Your task to perform on an android device: Turn on the flashlight Image 0: 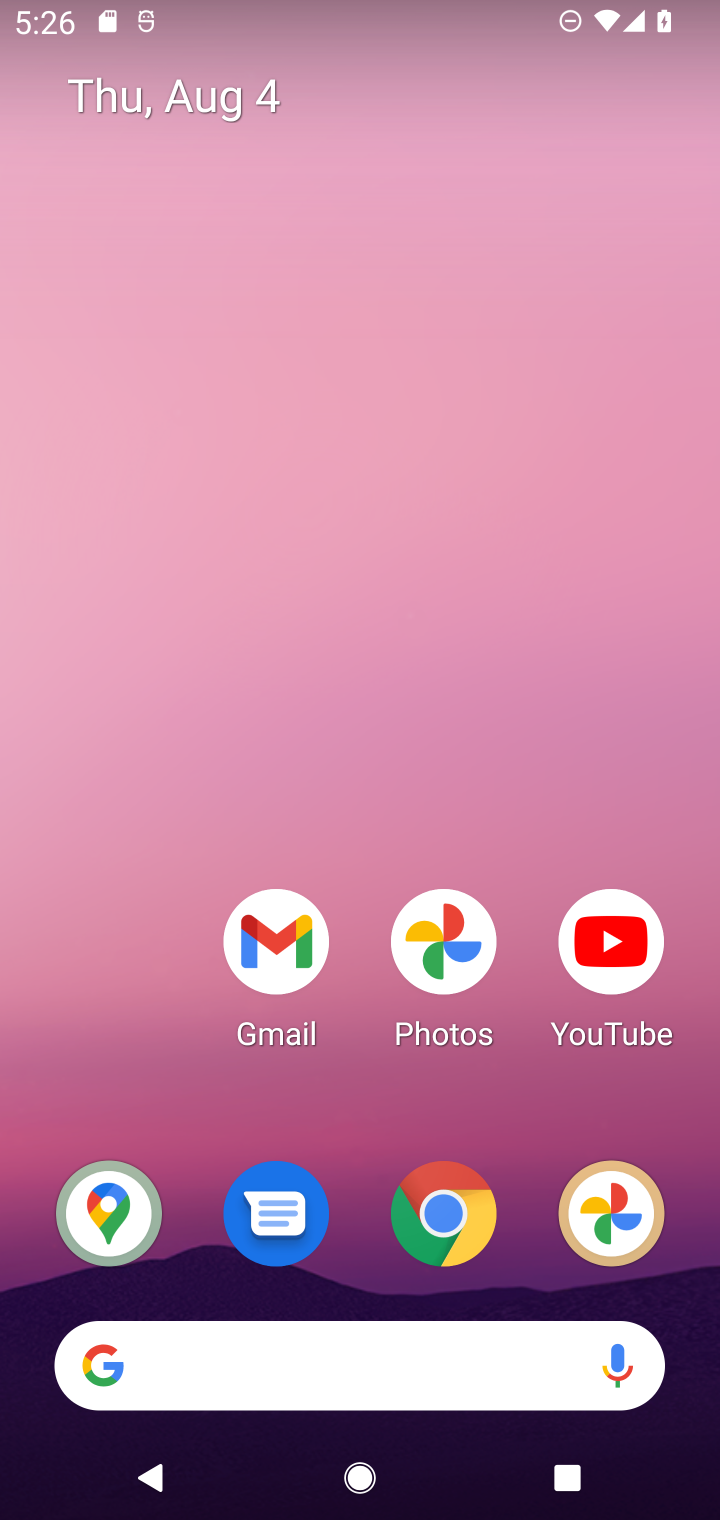
Step 0: drag from (370, 52) to (359, 770)
Your task to perform on an android device: Turn on the flashlight Image 1: 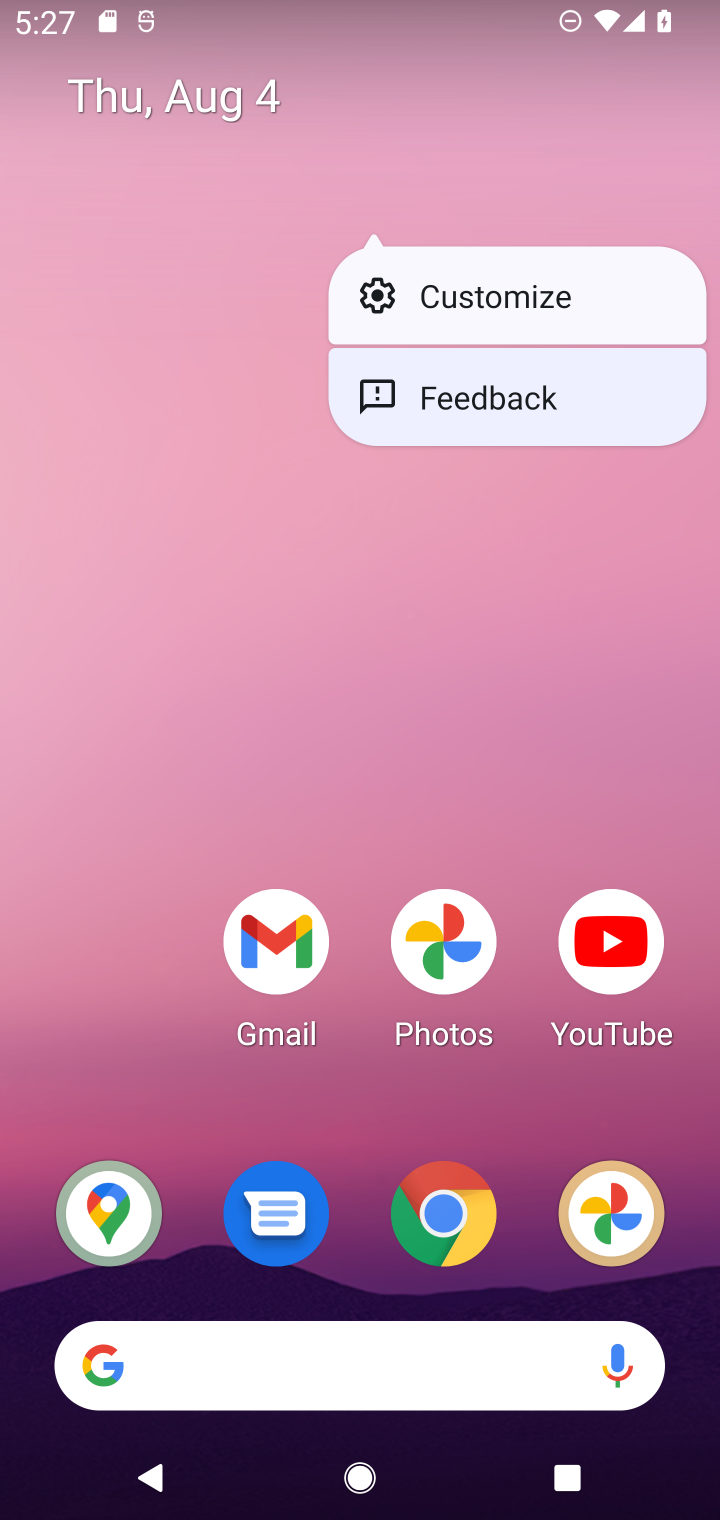
Step 1: click (201, 678)
Your task to perform on an android device: Turn on the flashlight Image 2: 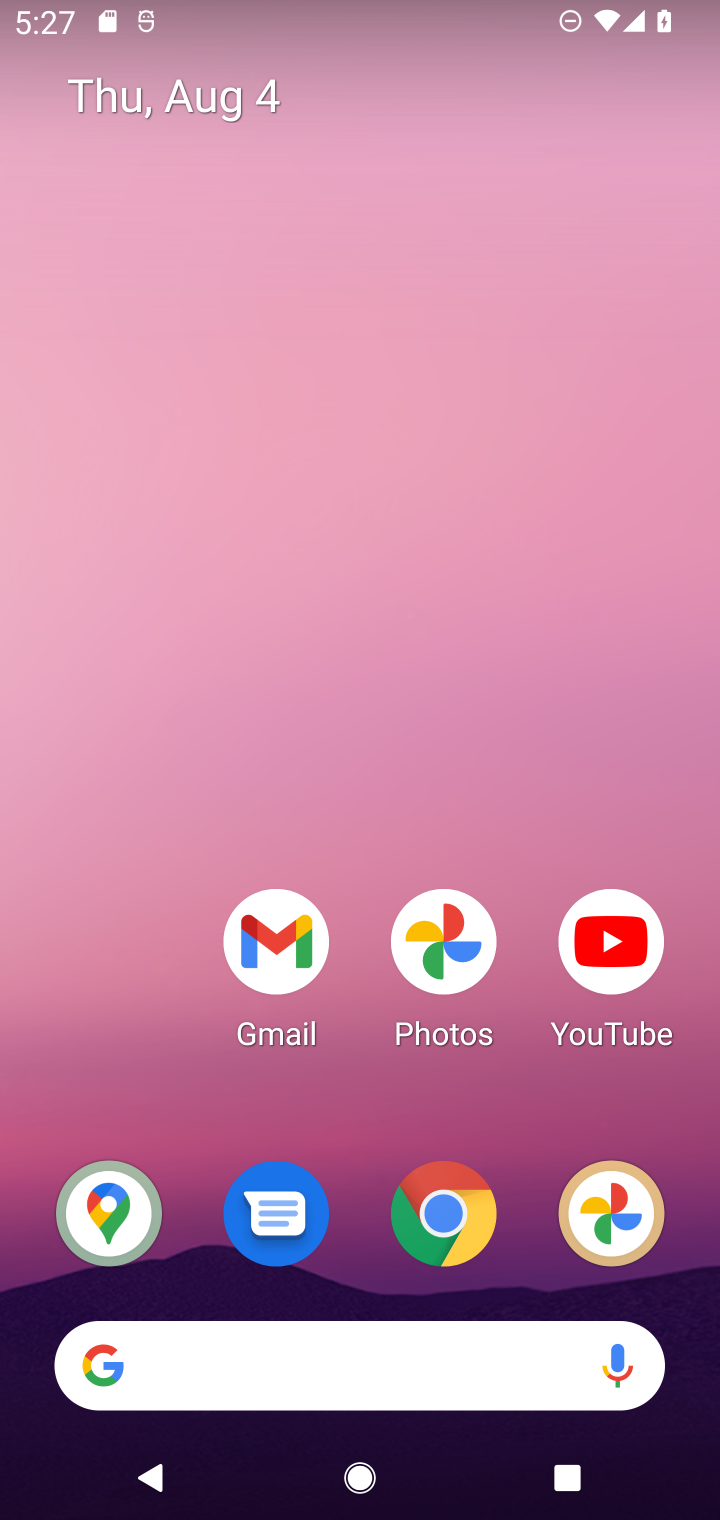
Step 2: task complete